Your task to perform on an android device: remove spam from my inbox in the gmail app Image 0: 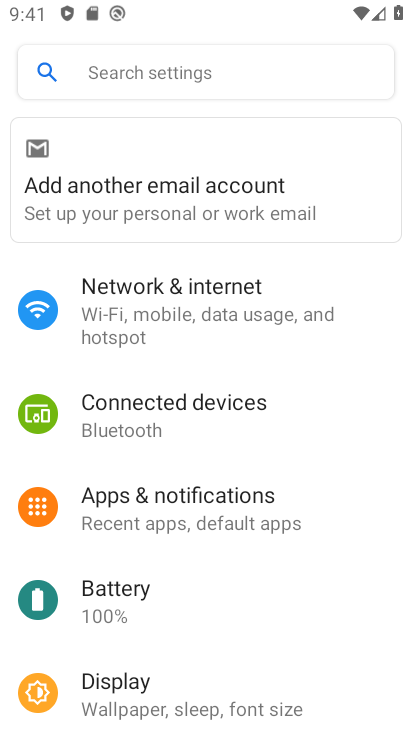
Step 0: press home button
Your task to perform on an android device: remove spam from my inbox in the gmail app Image 1: 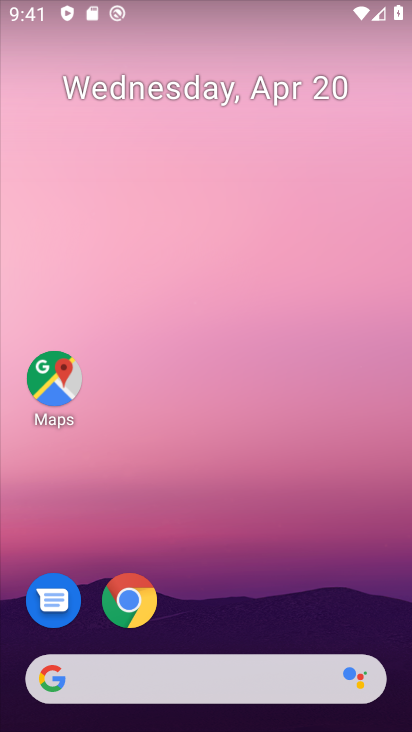
Step 1: drag from (289, 594) to (304, 146)
Your task to perform on an android device: remove spam from my inbox in the gmail app Image 2: 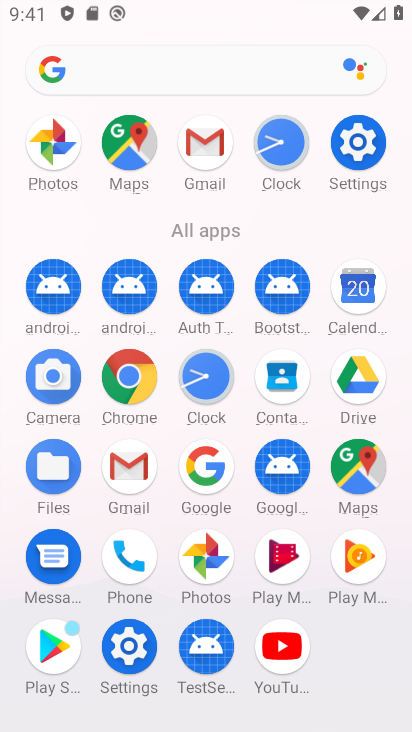
Step 2: click (206, 149)
Your task to perform on an android device: remove spam from my inbox in the gmail app Image 3: 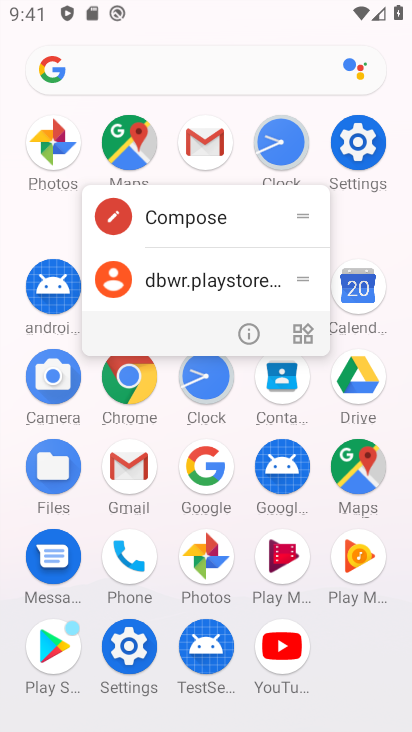
Step 3: click (208, 134)
Your task to perform on an android device: remove spam from my inbox in the gmail app Image 4: 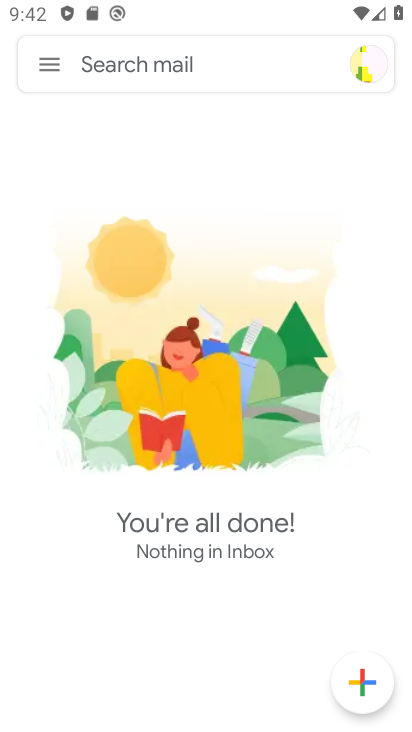
Step 4: click (49, 62)
Your task to perform on an android device: remove spam from my inbox in the gmail app Image 5: 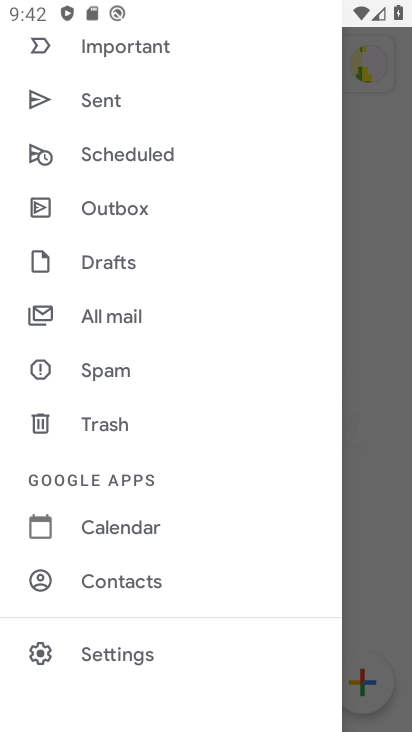
Step 5: click (111, 369)
Your task to perform on an android device: remove spam from my inbox in the gmail app Image 6: 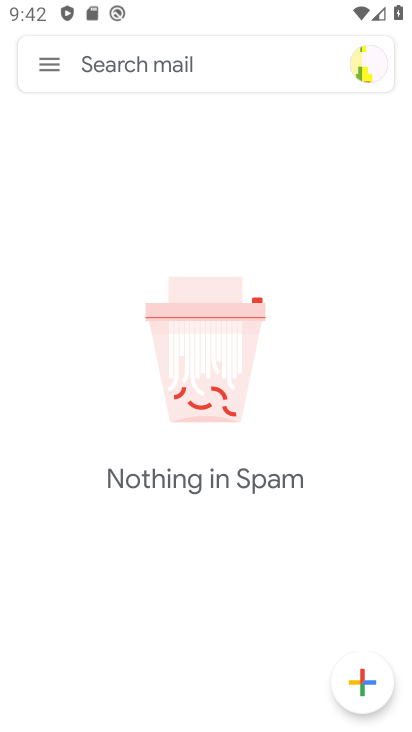
Step 6: task complete